Your task to perform on an android device: Open Reddit.com Image 0: 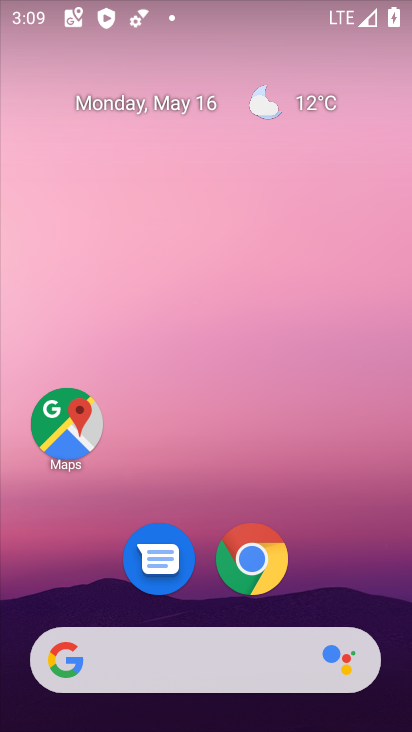
Step 0: click (261, 575)
Your task to perform on an android device: Open Reddit.com Image 1: 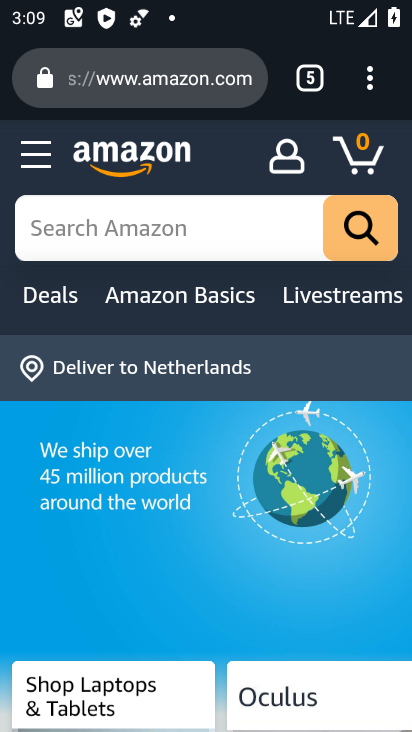
Step 1: click (321, 80)
Your task to perform on an android device: Open Reddit.com Image 2: 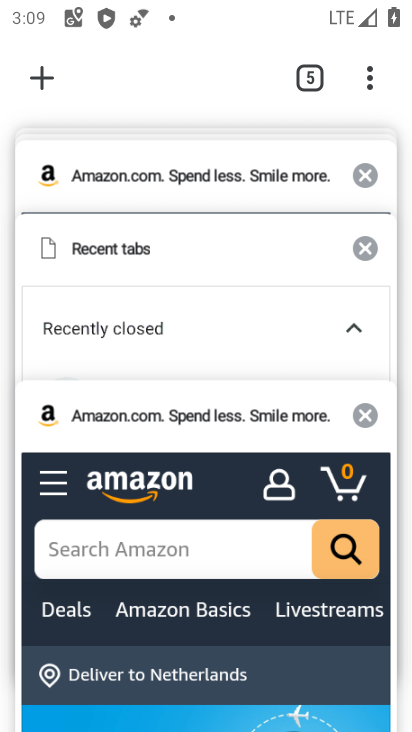
Step 2: drag from (205, 228) to (187, 724)
Your task to perform on an android device: Open Reddit.com Image 3: 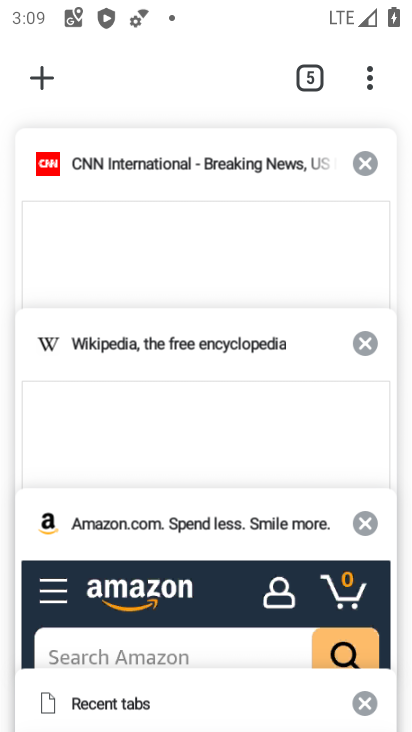
Step 3: drag from (153, 189) to (104, 709)
Your task to perform on an android device: Open Reddit.com Image 4: 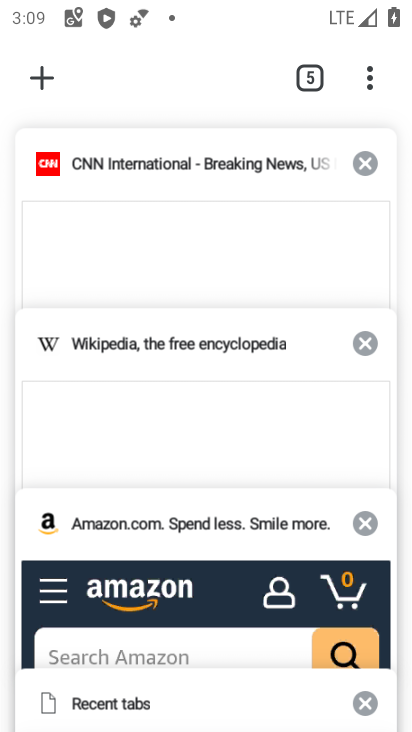
Step 4: click (53, 70)
Your task to perform on an android device: Open Reddit.com Image 5: 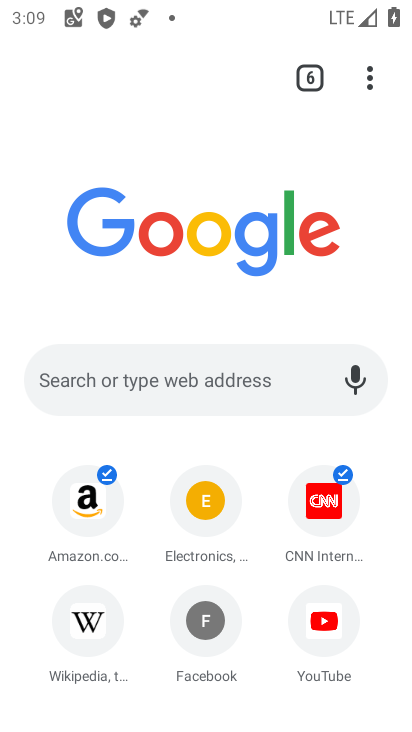
Step 5: click (158, 376)
Your task to perform on an android device: Open Reddit.com Image 6: 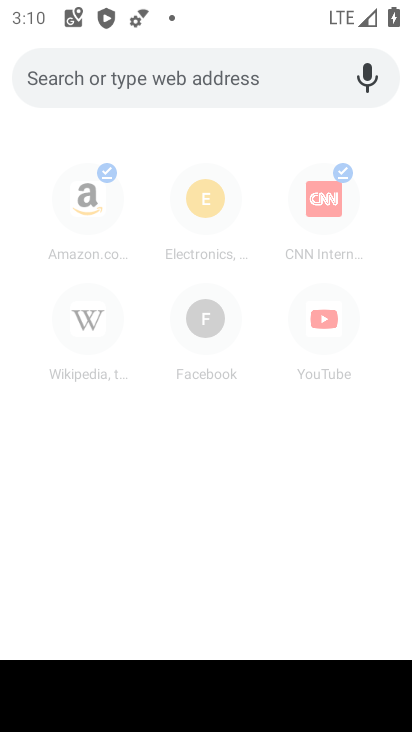
Step 6: type "reddit.com"
Your task to perform on an android device: Open Reddit.com Image 7: 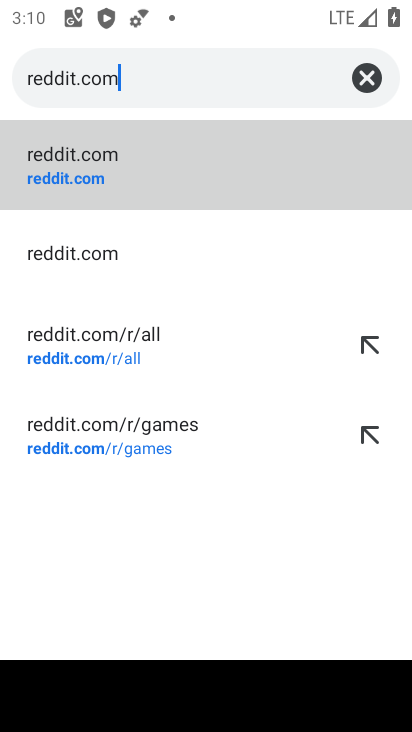
Step 7: click (81, 173)
Your task to perform on an android device: Open Reddit.com Image 8: 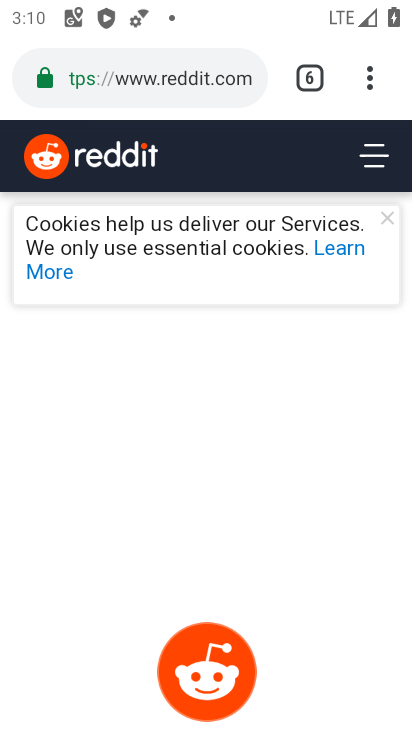
Step 8: task complete